Your task to perform on an android device: Open the stopwatch Image 0: 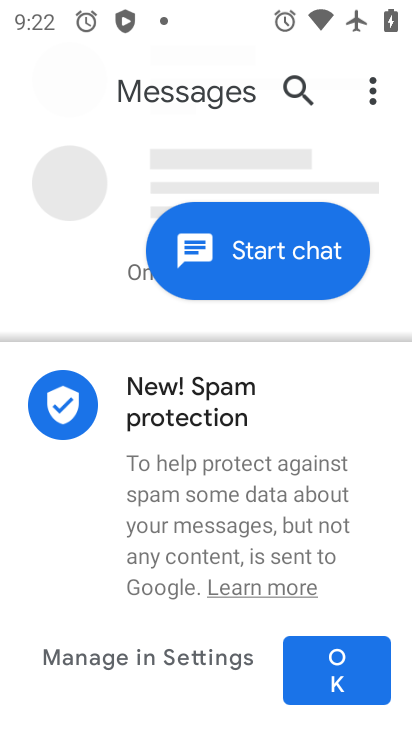
Step 0: press back button
Your task to perform on an android device: Open the stopwatch Image 1: 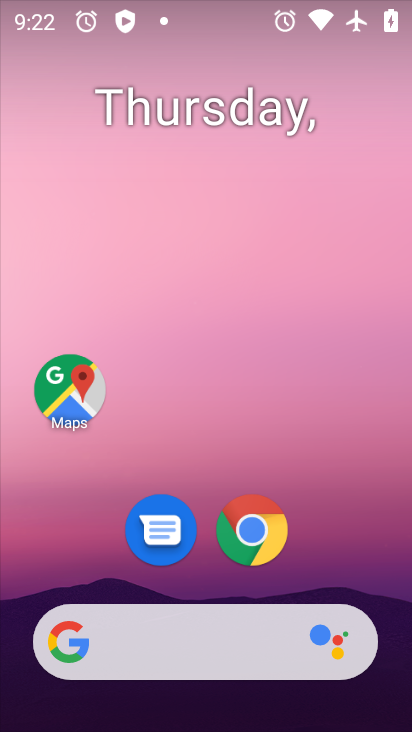
Step 1: drag from (348, 532) to (224, 6)
Your task to perform on an android device: Open the stopwatch Image 2: 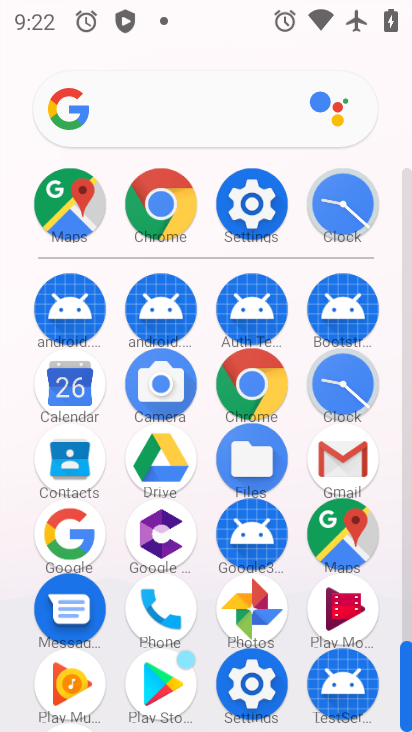
Step 2: drag from (3, 603) to (13, 310)
Your task to perform on an android device: Open the stopwatch Image 3: 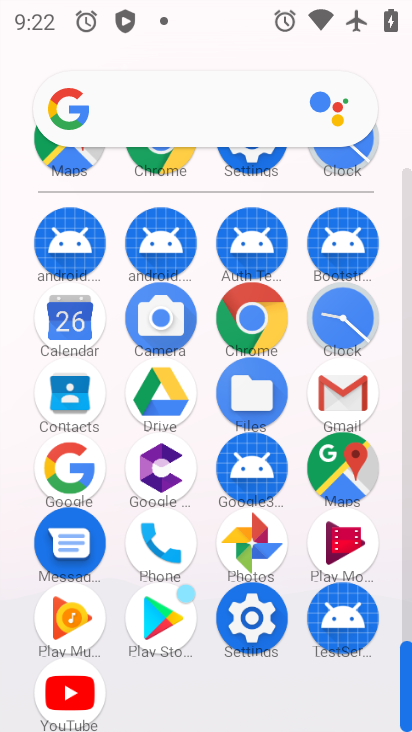
Step 3: click (340, 316)
Your task to perform on an android device: Open the stopwatch Image 4: 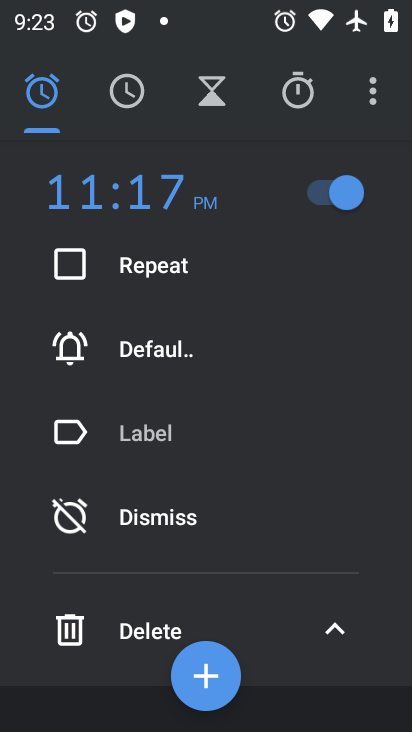
Step 4: click (136, 92)
Your task to perform on an android device: Open the stopwatch Image 5: 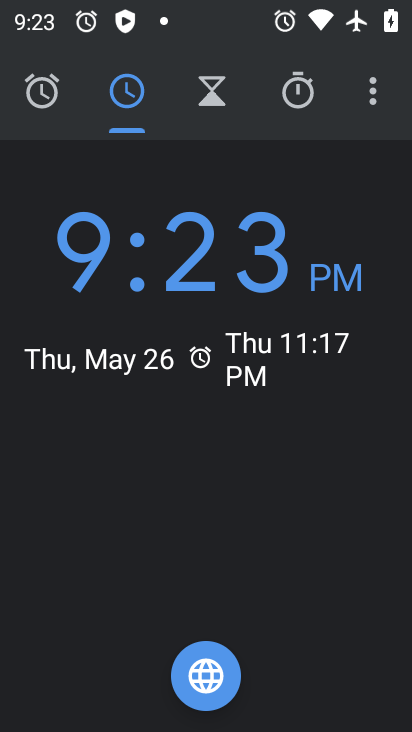
Step 5: click (240, 87)
Your task to perform on an android device: Open the stopwatch Image 6: 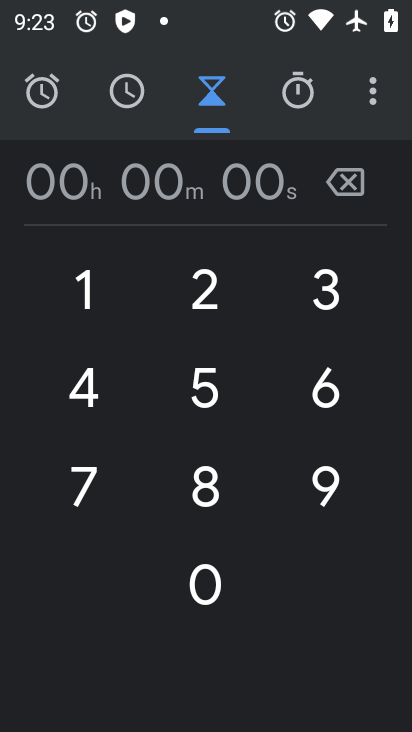
Step 6: click (279, 68)
Your task to perform on an android device: Open the stopwatch Image 7: 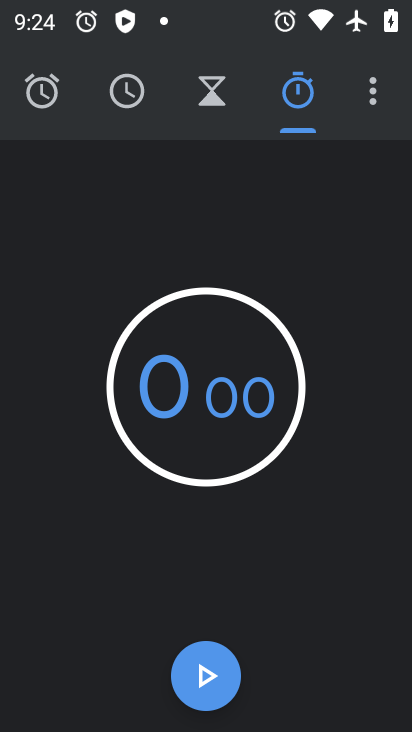
Step 7: task complete